Your task to perform on an android device: Go to accessibility settings Image 0: 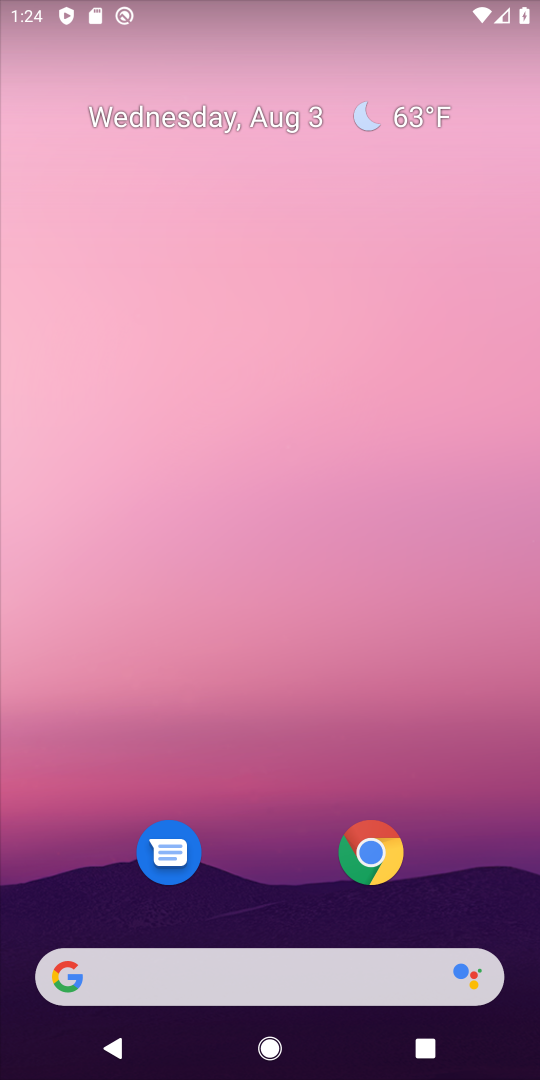
Step 0: drag from (289, 990) to (348, 239)
Your task to perform on an android device: Go to accessibility settings Image 1: 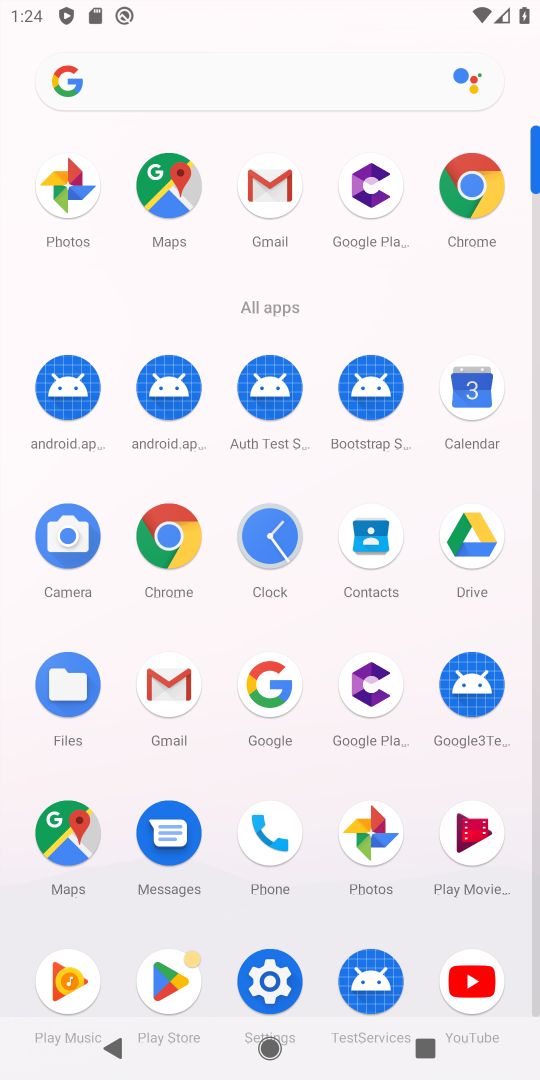
Step 1: drag from (272, 988) to (377, 551)
Your task to perform on an android device: Go to accessibility settings Image 2: 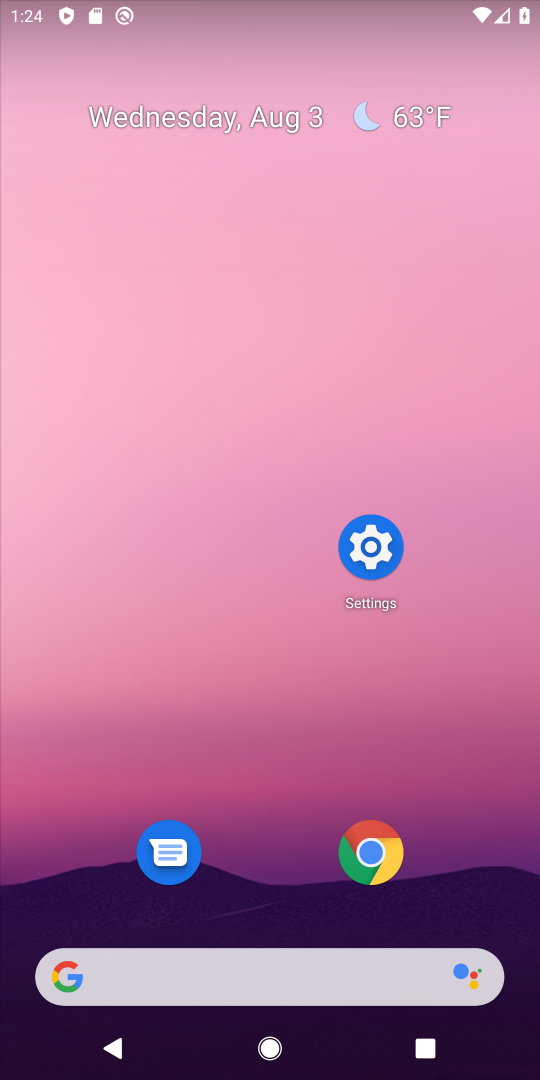
Step 2: click (373, 547)
Your task to perform on an android device: Go to accessibility settings Image 3: 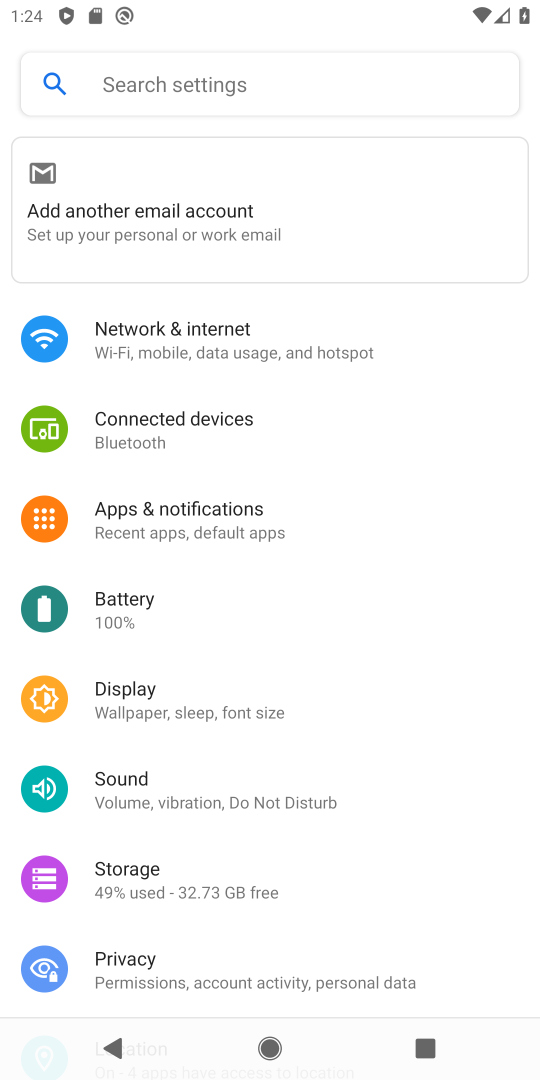
Step 3: drag from (294, 909) to (427, 106)
Your task to perform on an android device: Go to accessibility settings Image 4: 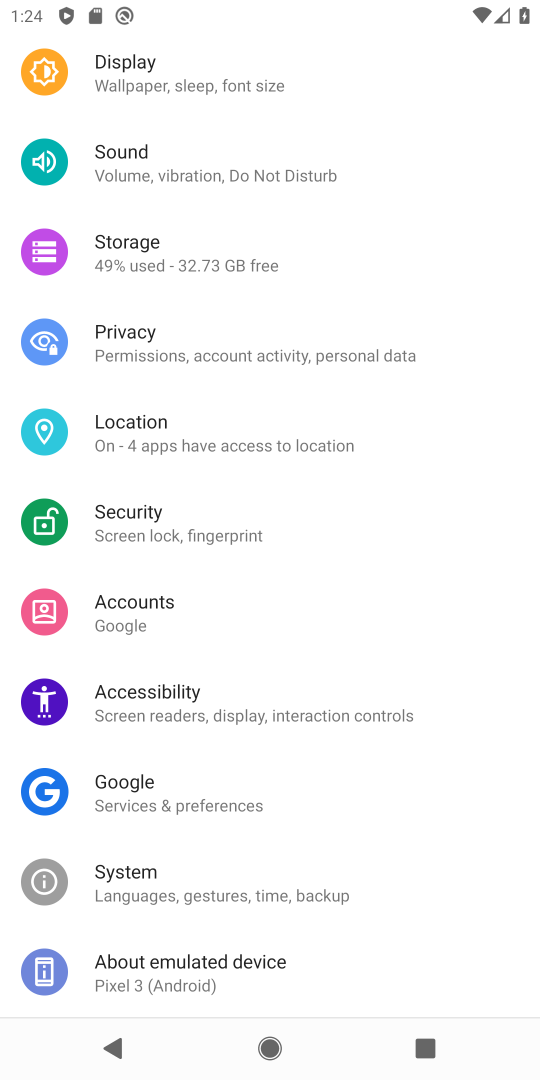
Step 4: click (165, 697)
Your task to perform on an android device: Go to accessibility settings Image 5: 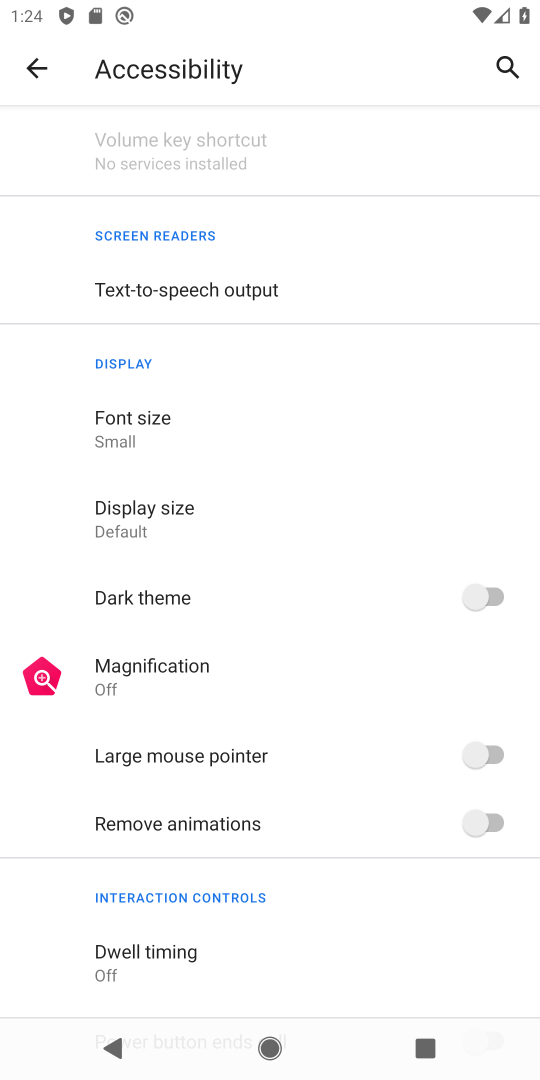
Step 5: task complete